Your task to perform on an android device: Is it going to rain tomorrow? Image 0: 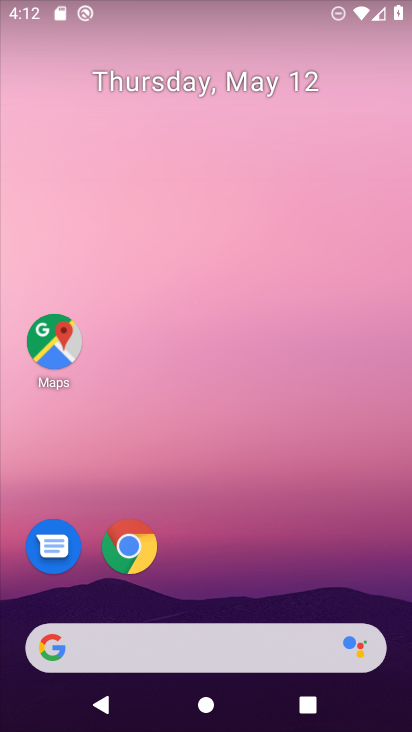
Step 0: drag from (234, 597) to (254, 136)
Your task to perform on an android device: Is it going to rain tomorrow? Image 1: 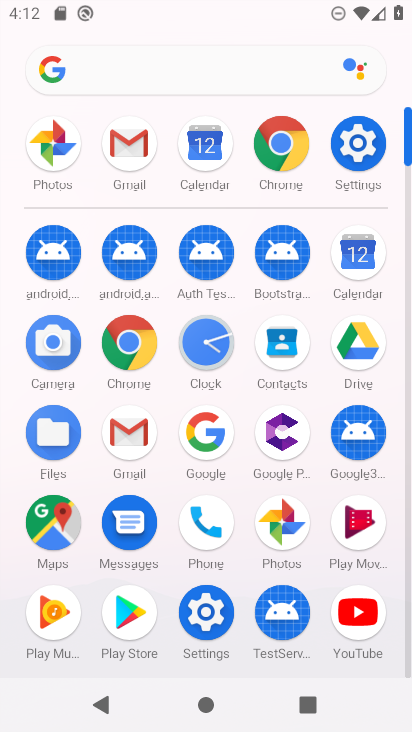
Step 1: click (293, 152)
Your task to perform on an android device: Is it going to rain tomorrow? Image 2: 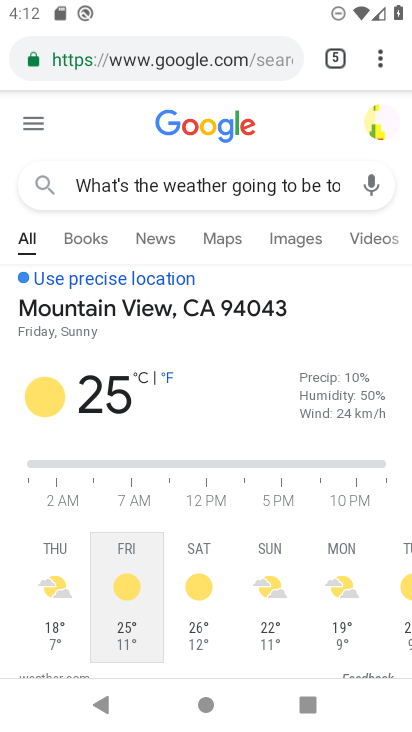
Step 2: click (371, 57)
Your task to perform on an android device: Is it going to rain tomorrow? Image 3: 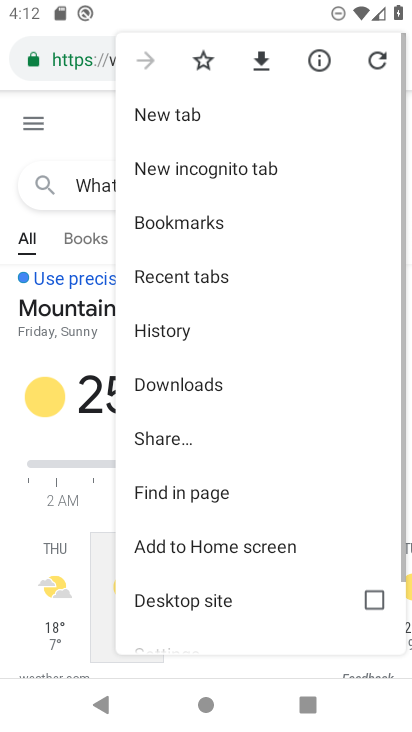
Step 3: click (148, 103)
Your task to perform on an android device: Is it going to rain tomorrow? Image 4: 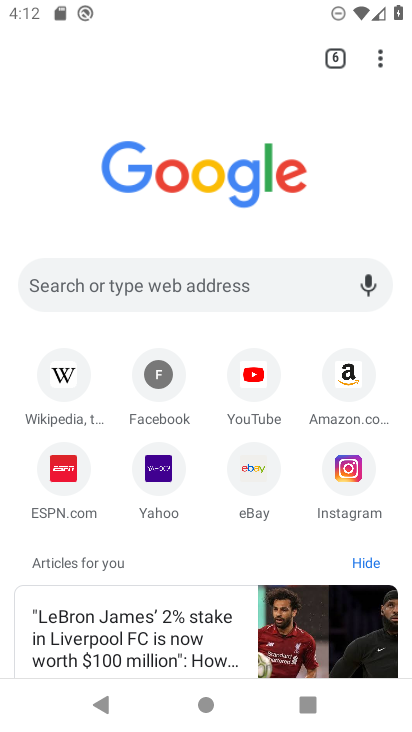
Step 4: click (228, 291)
Your task to perform on an android device: Is it going to rain tomorrow? Image 5: 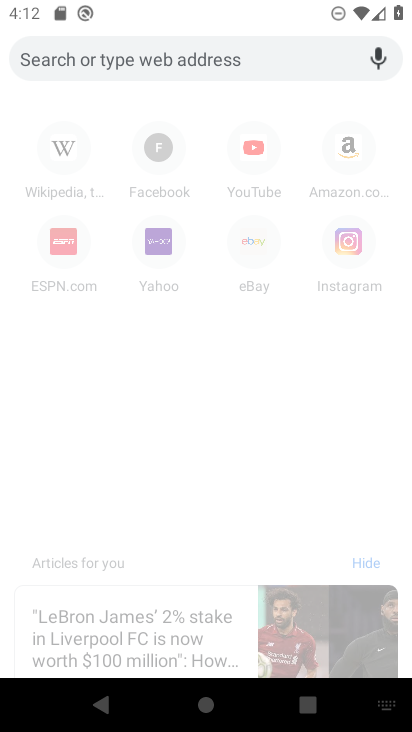
Step 5: type "Is it going to rain tomorrow?"
Your task to perform on an android device: Is it going to rain tomorrow? Image 6: 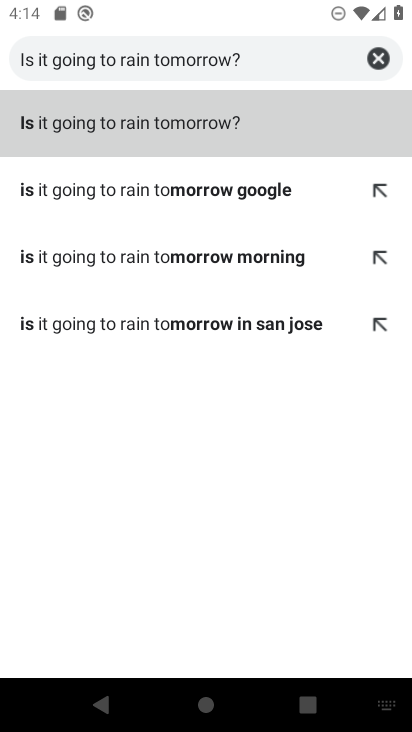
Step 6: click (200, 103)
Your task to perform on an android device: Is it going to rain tomorrow? Image 7: 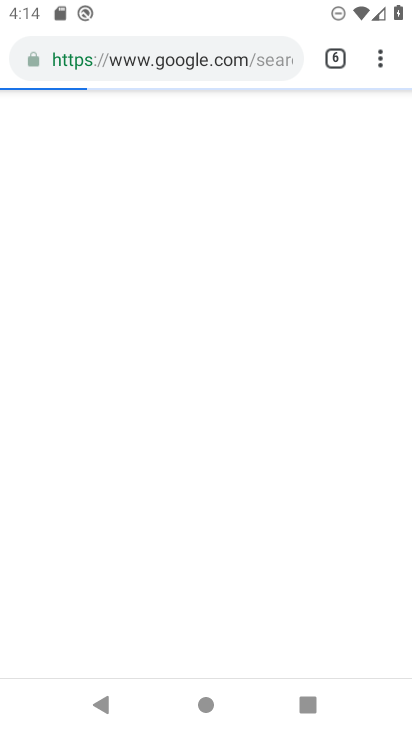
Step 7: task complete